Your task to perform on an android device: open a bookmark in the chrome app Image 0: 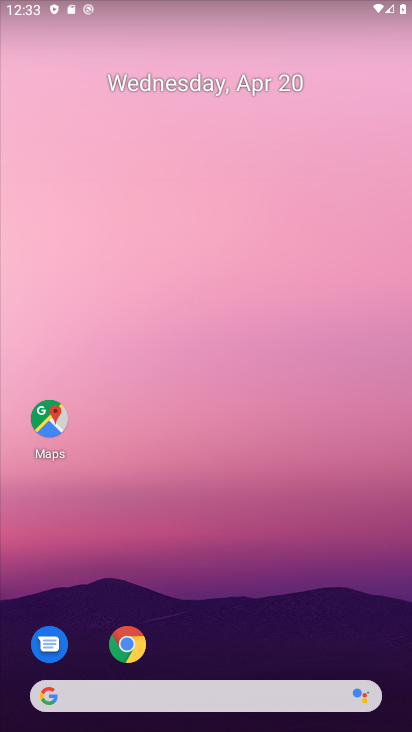
Step 0: click (136, 649)
Your task to perform on an android device: open a bookmark in the chrome app Image 1: 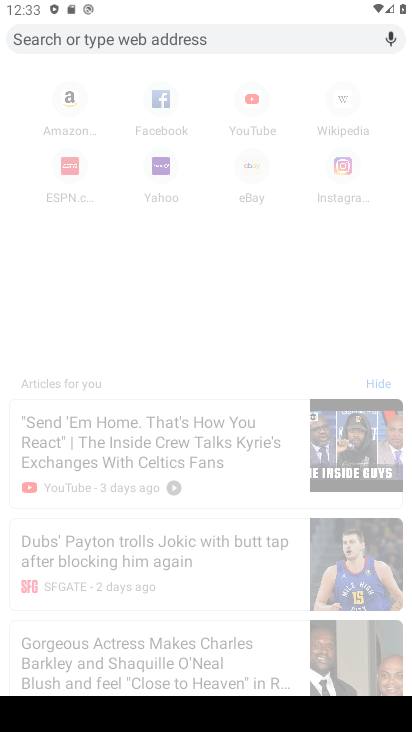
Step 1: press back button
Your task to perform on an android device: open a bookmark in the chrome app Image 2: 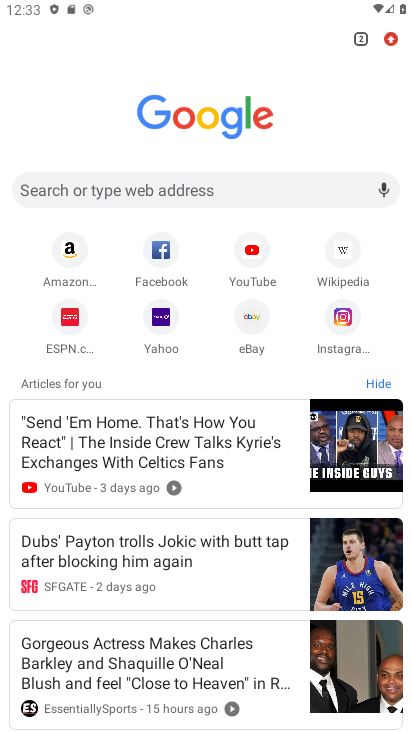
Step 2: click (388, 37)
Your task to perform on an android device: open a bookmark in the chrome app Image 3: 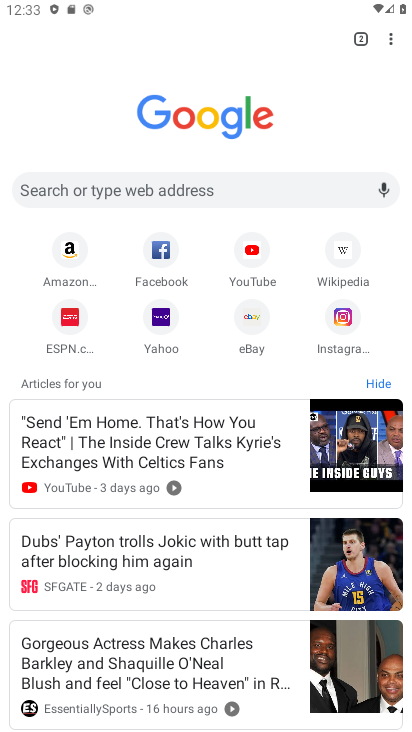
Step 3: click (388, 37)
Your task to perform on an android device: open a bookmark in the chrome app Image 4: 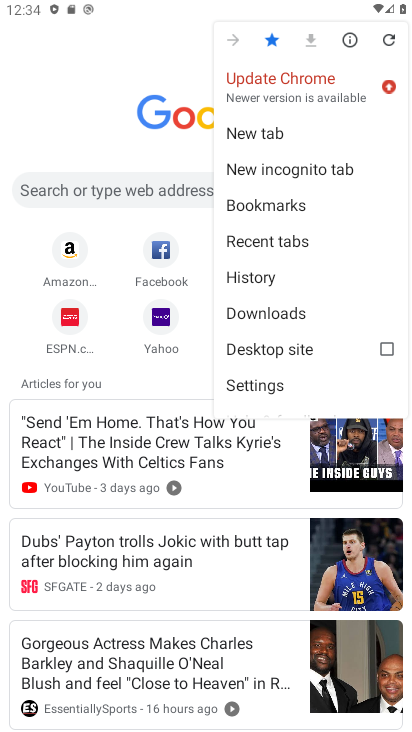
Step 4: click (311, 200)
Your task to perform on an android device: open a bookmark in the chrome app Image 5: 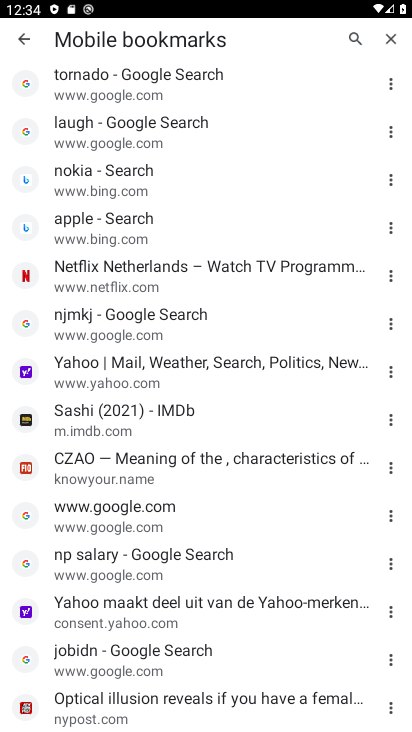
Step 5: click (213, 171)
Your task to perform on an android device: open a bookmark in the chrome app Image 6: 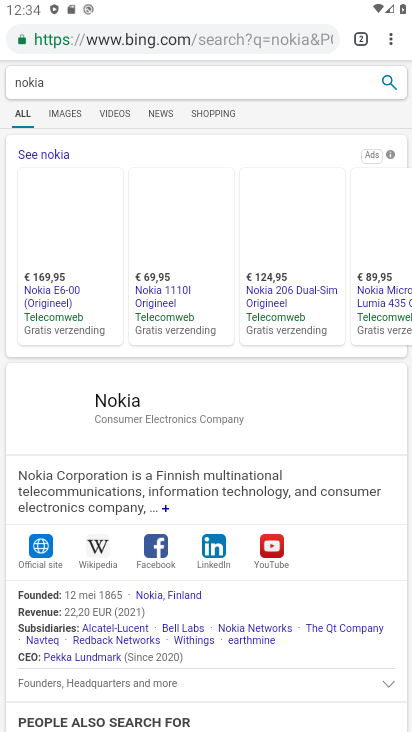
Step 6: task complete